Your task to perform on an android device: turn smart compose on in the gmail app Image 0: 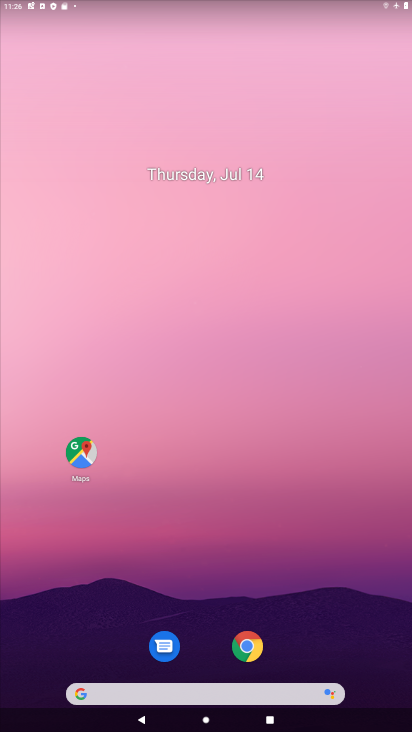
Step 0: drag from (199, 652) to (190, 156)
Your task to perform on an android device: turn smart compose on in the gmail app Image 1: 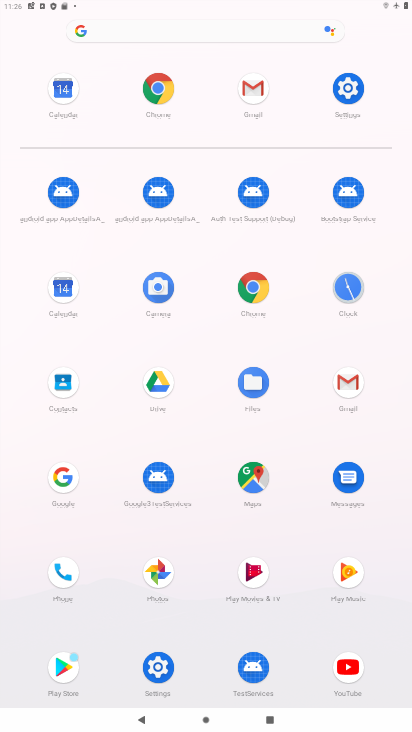
Step 1: click (266, 108)
Your task to perform on an android device: turn smart compose on in the gmail app Image 2: 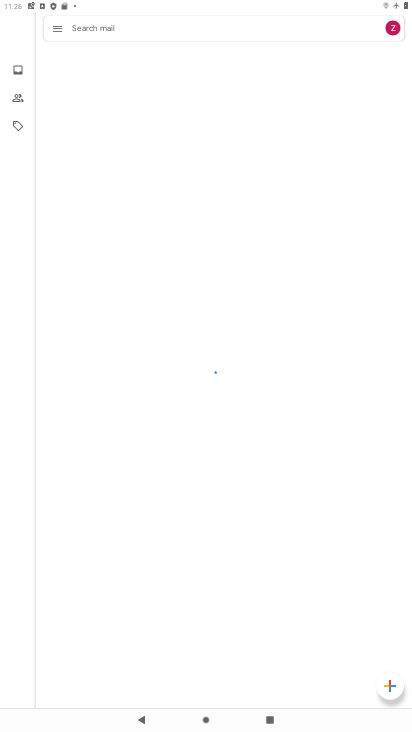
Step 2: click (57, 28)
Your task to perform on an android device: turn smart compose on in the gmail app Image 3: 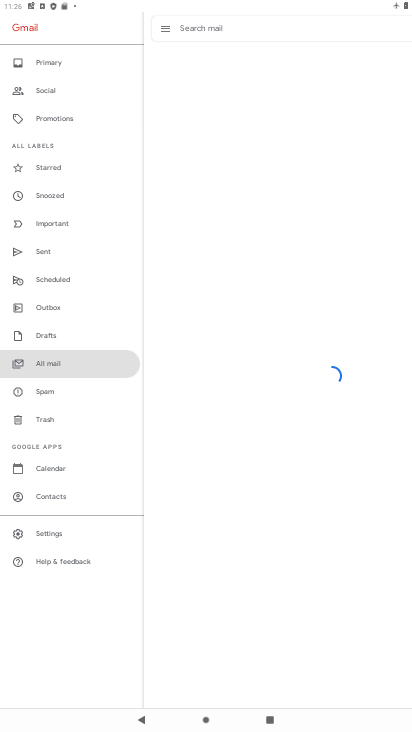
Step 3: click (49, 529)
Your task to perform on an android device: turn smart compose on in the gmail app Image 4: 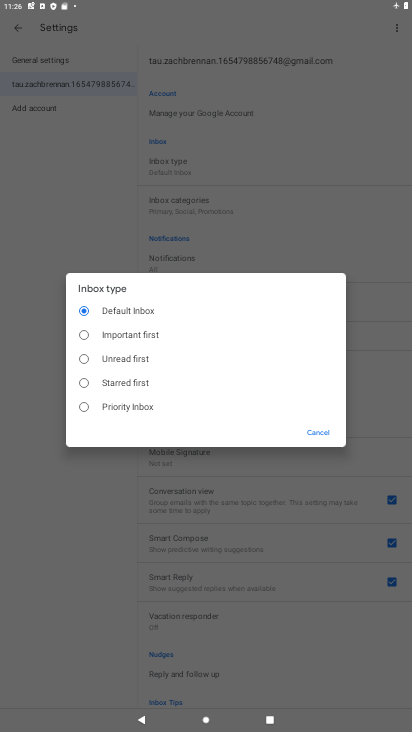
Step 4: click (23, 432)
Your task to perform on an android device: turn smart compose on in the gmail app Image 5: 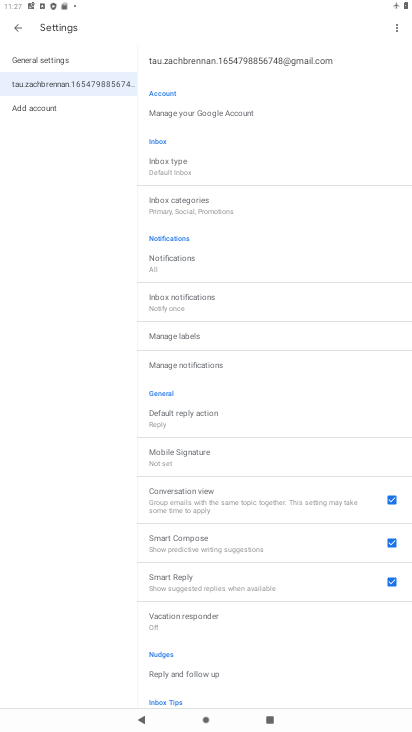
Step 5: task complete